Your task to perform on an android device: Go to privacy settings Image 0: 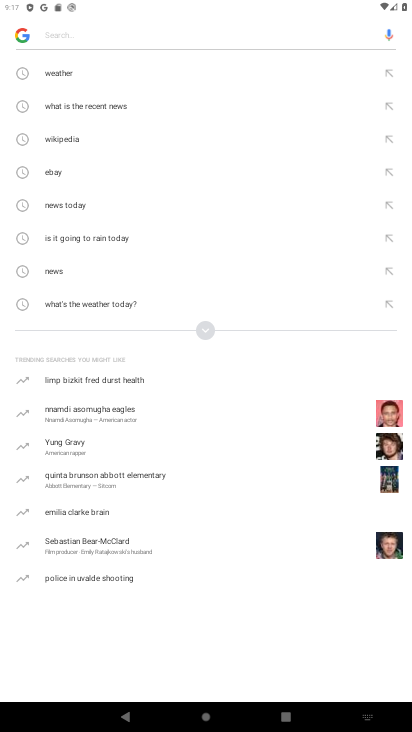
Step 0: press home button
Your task to perform on an android device: Go to privacy settings Image 1: 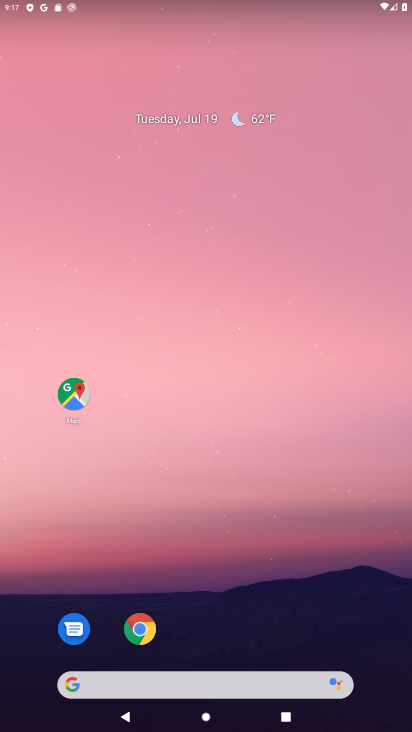
Step 1: drag from (349, 642) to (355, 155)
Your task to perform on an android device: Go to privacy settings Image 2: 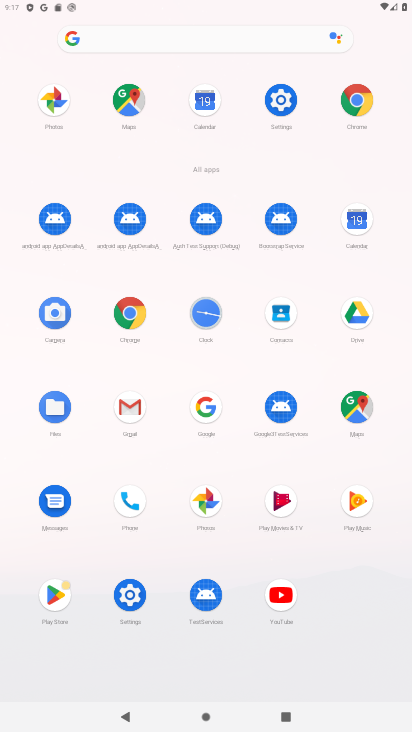
Step 2: click (287, 104)
Your task to perform on an android device: Go to privacy settings Image 3: 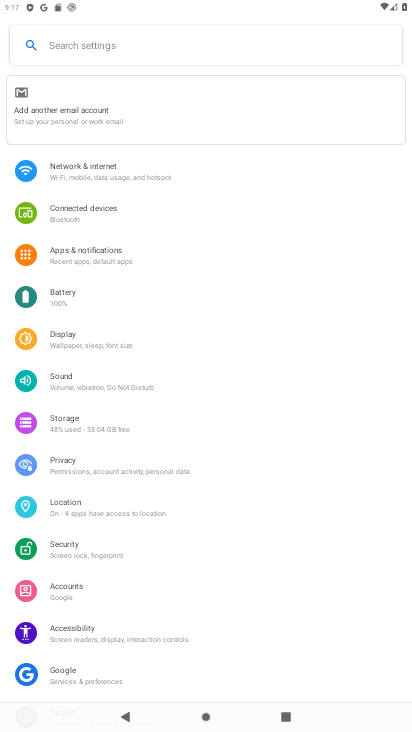
Step 3: click (118, 464)
Your task to perform on an android device: Go to privacy settings Image 4: 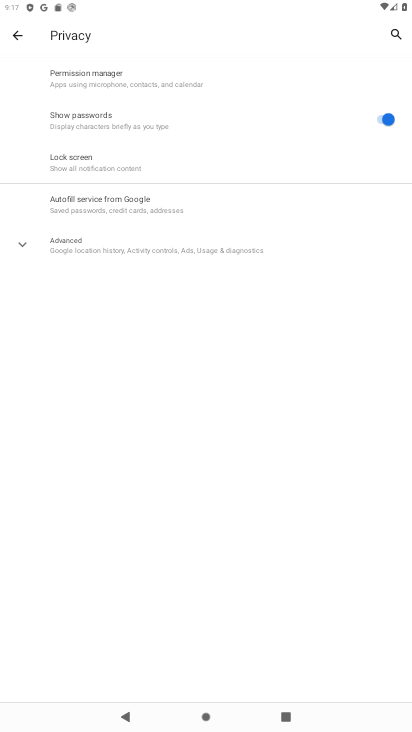
Step 4: task complete